Your task to perform on an android device: Open the web browser Image 0: 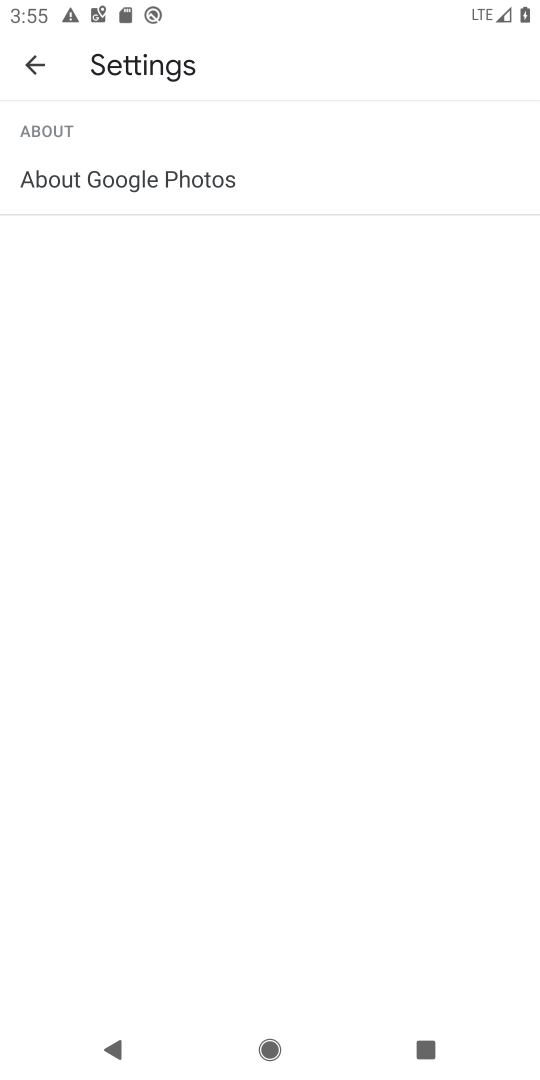
Step 0: press back button
Your task to perform on an android device: Open the web browser Image 1: 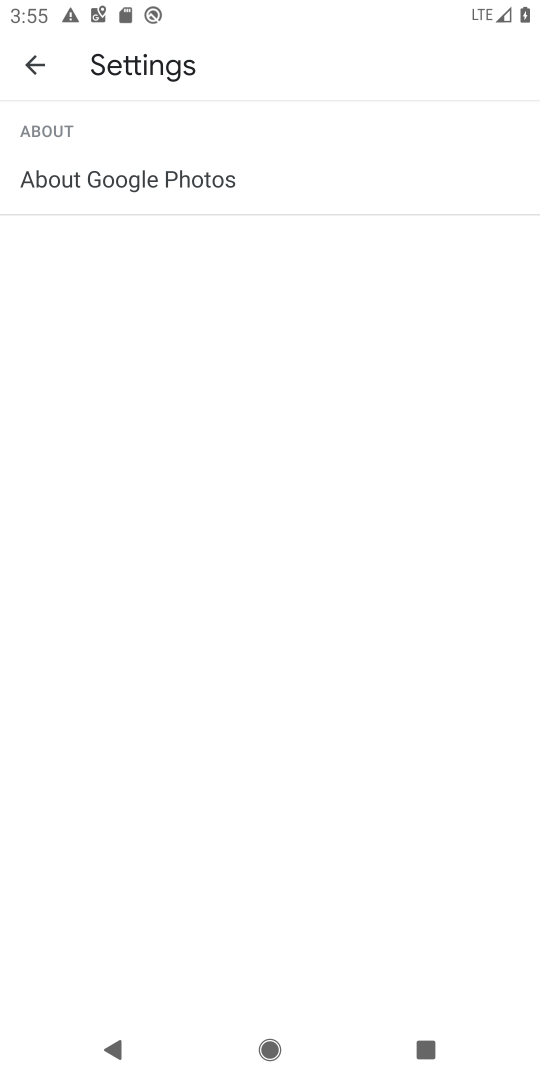
Step 1: press back button
Your task to perform on an android device: Open the web browser Image 2: 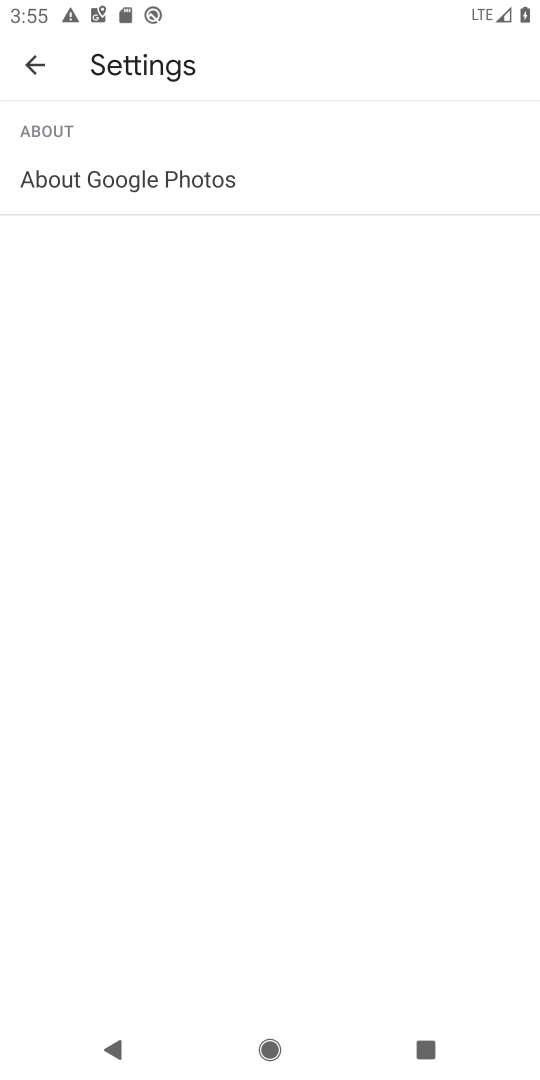
Step 2: press back button
Your task to perform on an android device: Open the web browser Image 3: 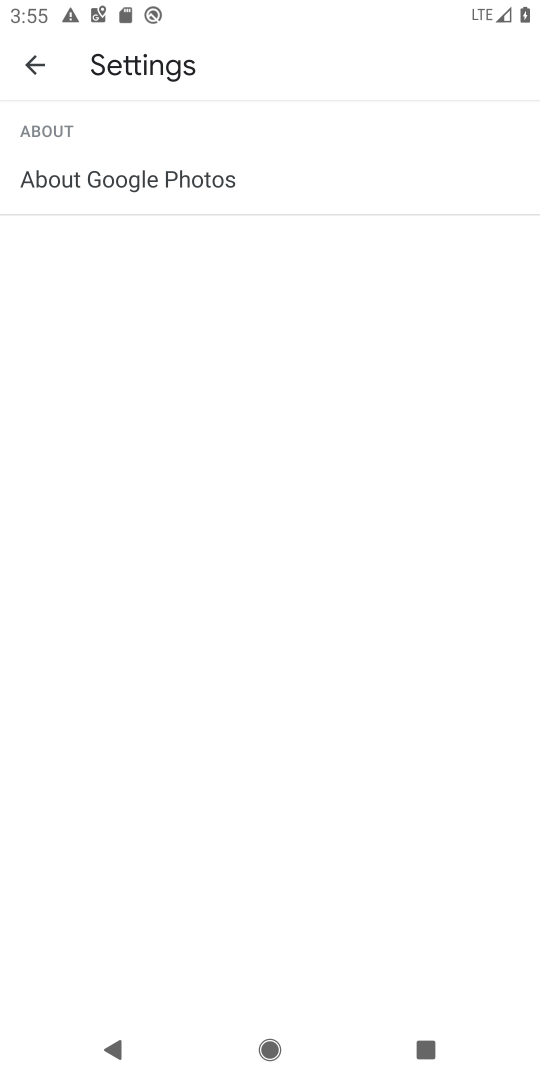
Step 3: press back button
Your task to perform on an android device: Open the web browser Image 4: 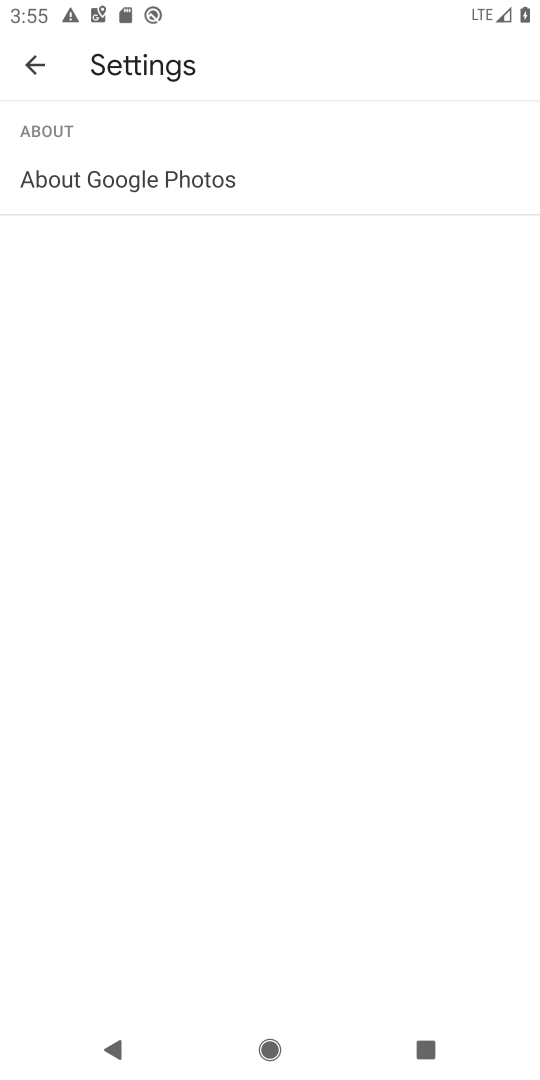
Step 4: press home button
Your task to perform on an android device: Open the web browser Image 5: 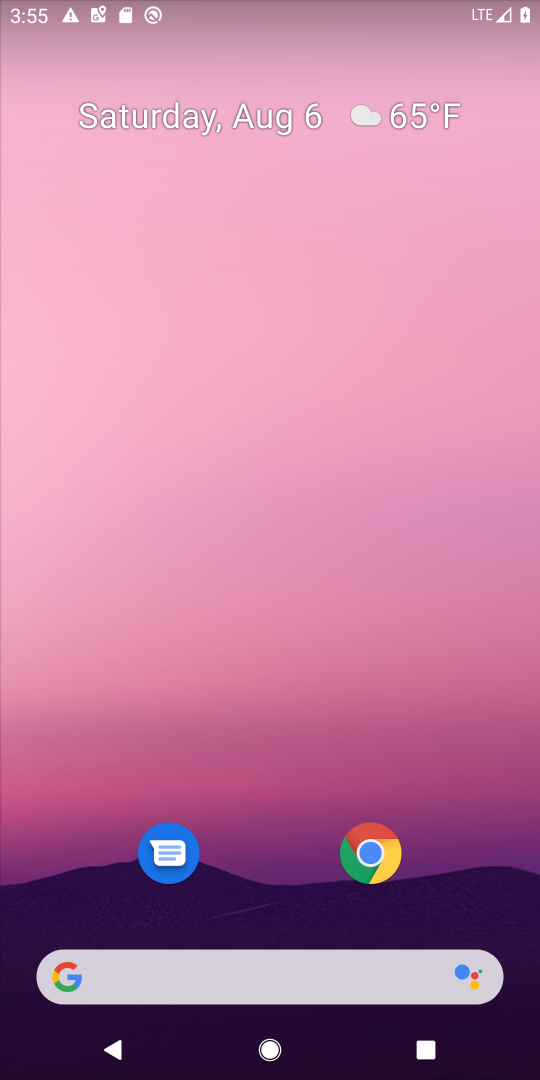
Step 5: click (379, 847)
Your task to perform on an android device: Open the web browser Image 6: 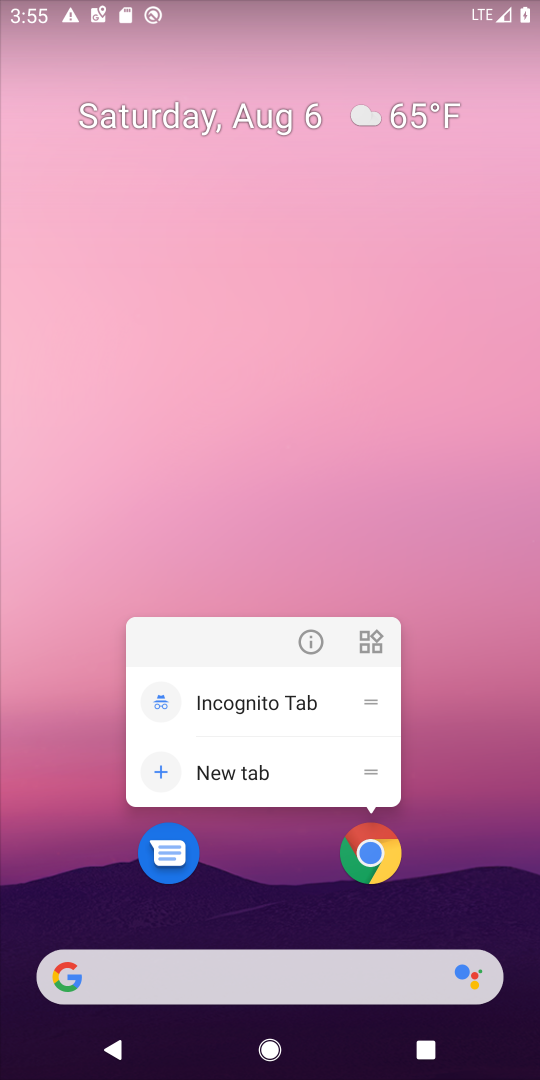
Step 6: click (376, 845)
Your task to perform on an android device: Open the web browser Image 7: 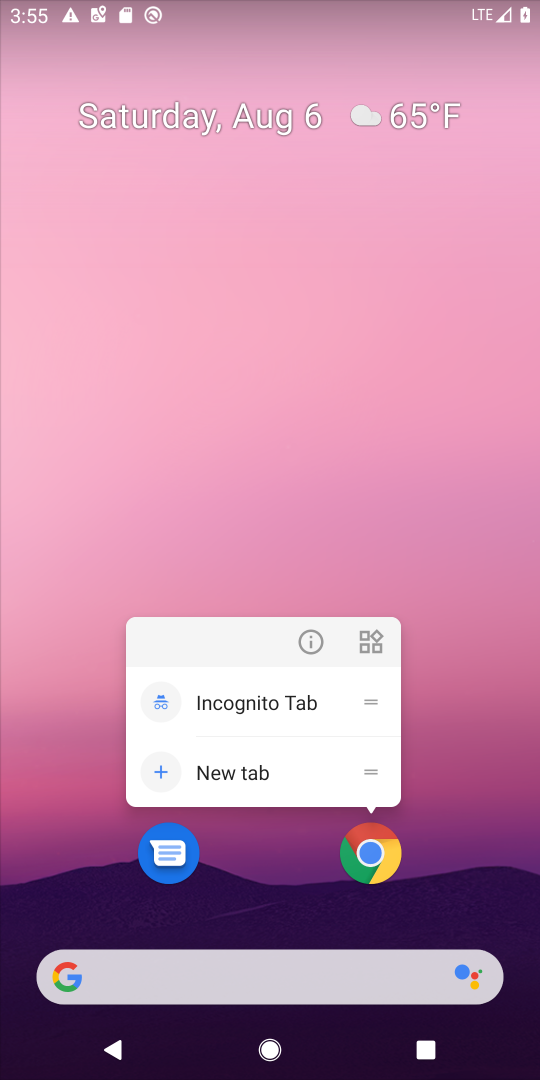
Step 7: click (374, 856)
Your task to perform on an android device: Open the web browser Image 8: 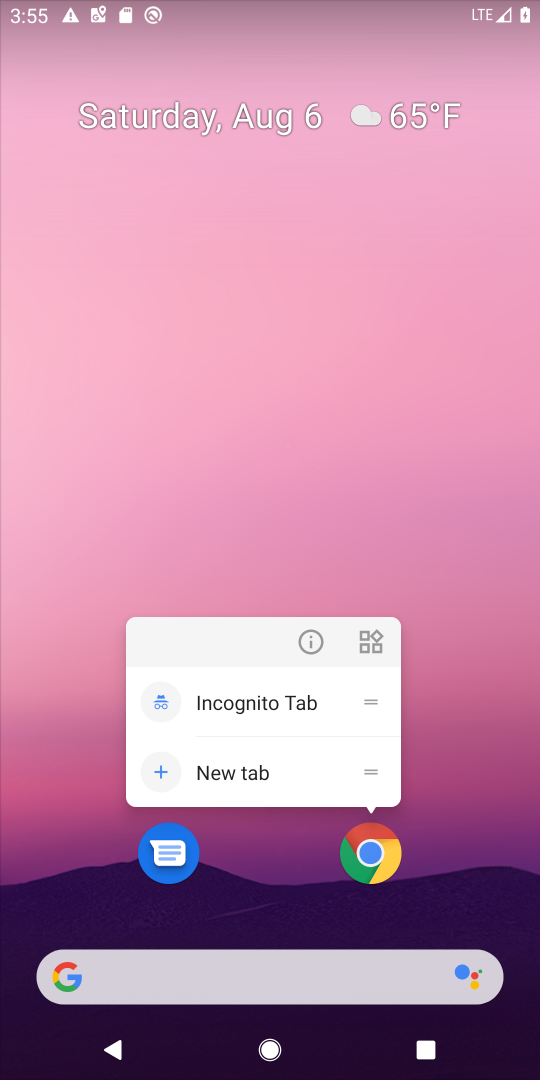
Step 8: click (370, 854)
Your task to perform on an android device: Open the web browser Image 9: 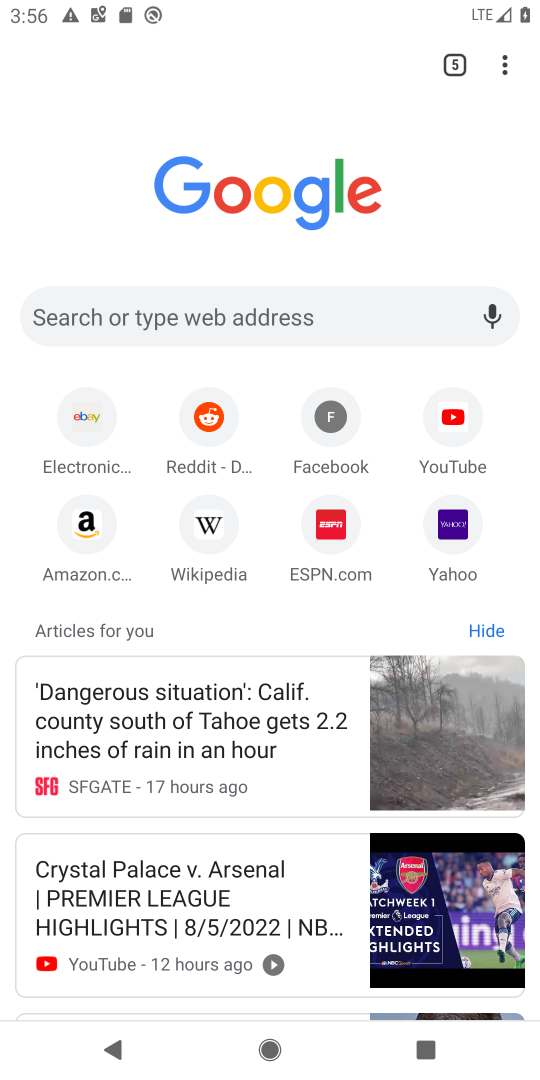
Step 9: task complete